Your task to perform on an android device: Search for sushi restaurants on Maps Image 0: 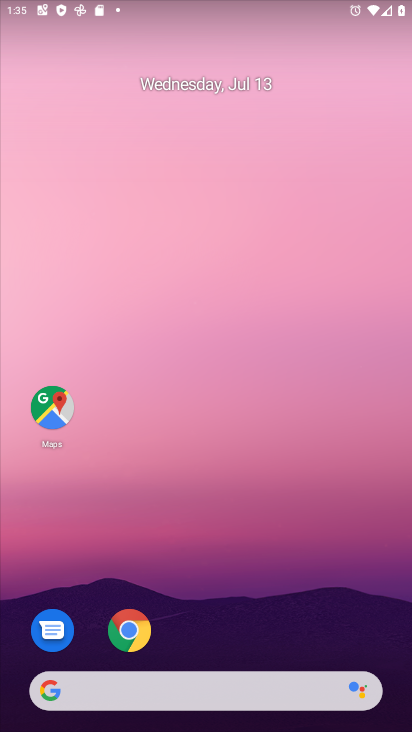
Step 0: drag from (397, 672) to (284, 51)
Your task to perform on an android device: Search for sushi restaurants on Maps Image 1: 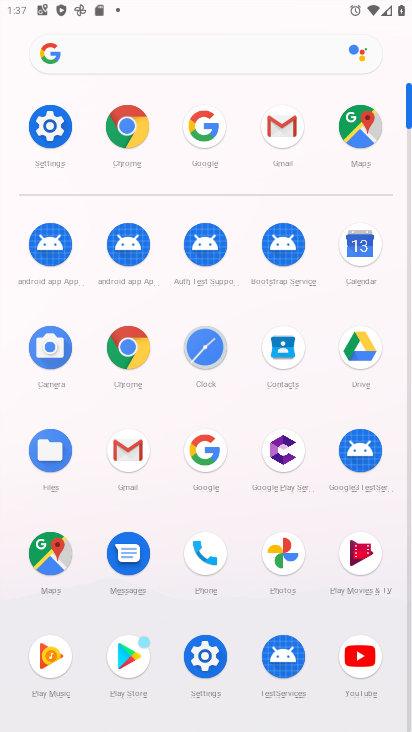
Step 1: click (21, 571)
Your task to perform on an android device: Search for sushi restaurants on Maps Image 2: 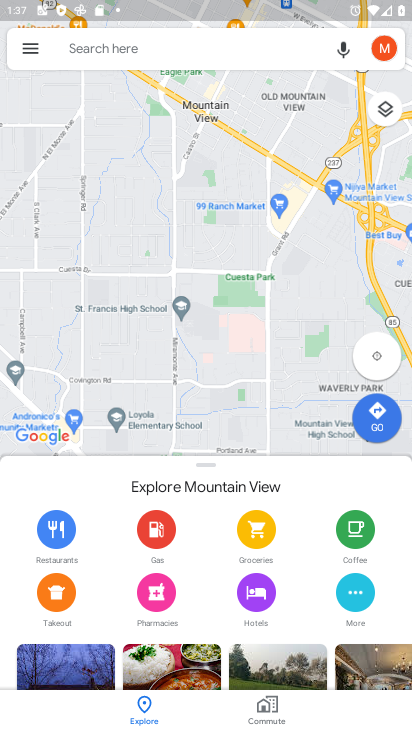
Step 2: click (196, 55)
Your task to perform on an android device: Search for sushi restaurants on Maps Image 3: 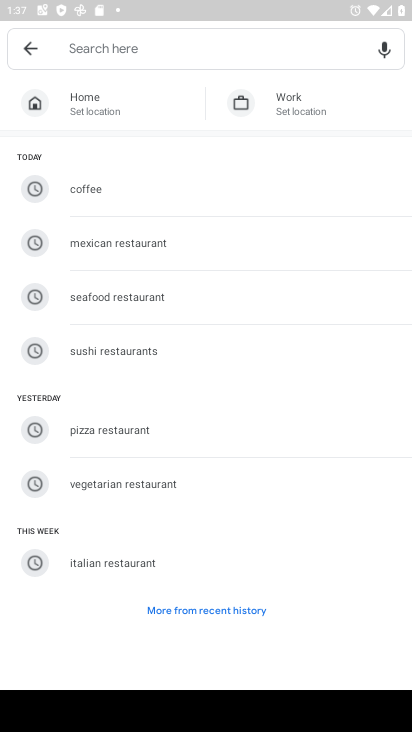
Step 3: click (115, 354)
Your task to perform on an android device: Search for sushi restaurants on Maps Image 4: 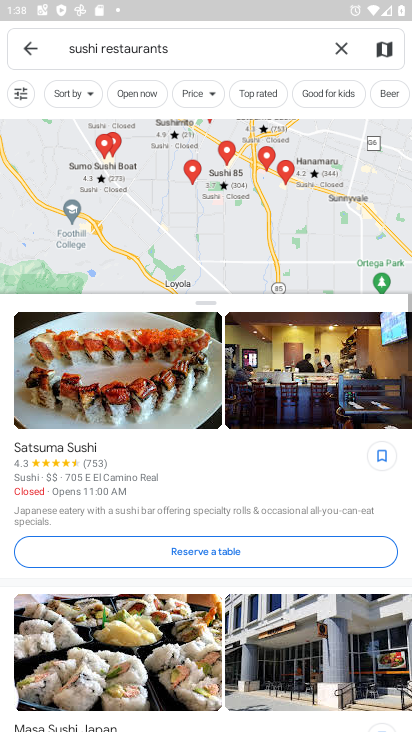
Step 4: task complete